Your task to perform on an android device: turn on data saver in the chrome app Image 0: 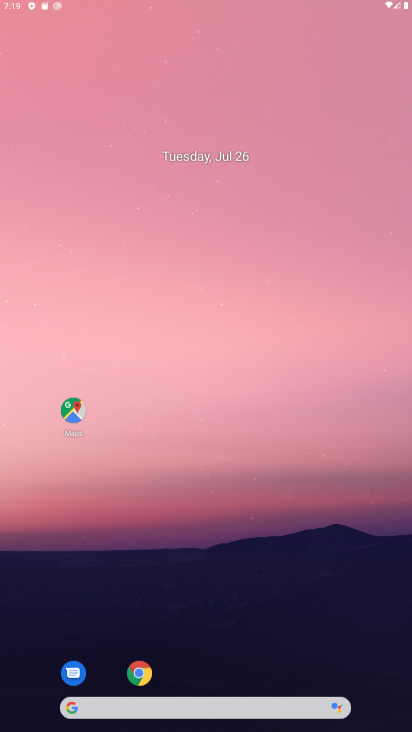
Step 0: drag from (355, 597) to (247, 237)
Your task to perform on an android device: turn on data saver in the chrome app Image 1: 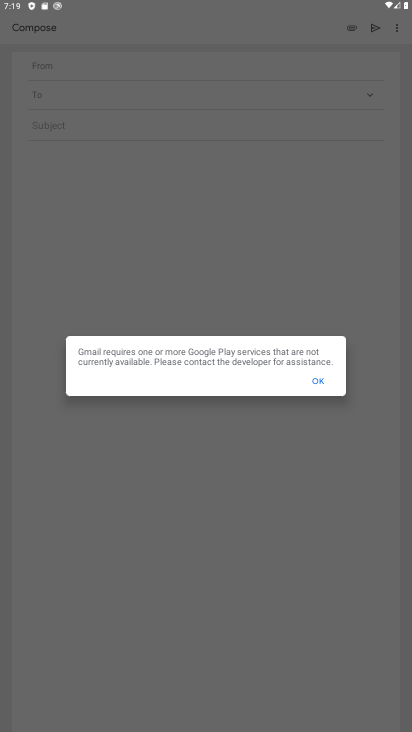
Step 1: press home button
Your task to perform on an android device: turn on data saver in the chrome app Image 2: 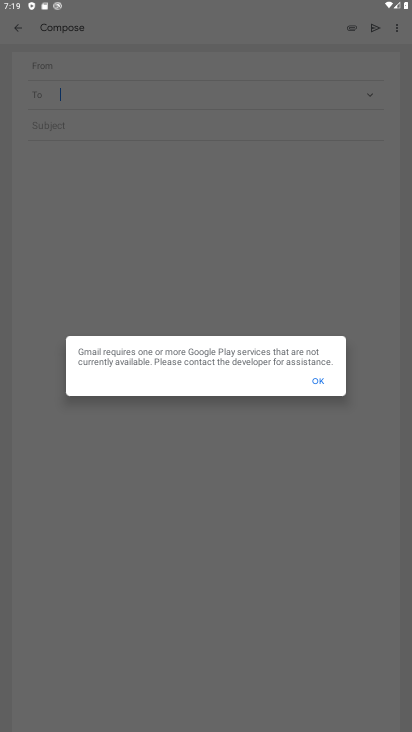
Step 2: drag from (273, 105) to (266, 69)
Your task to perform on an android device: turn on data saver in the chrome app Image 3: 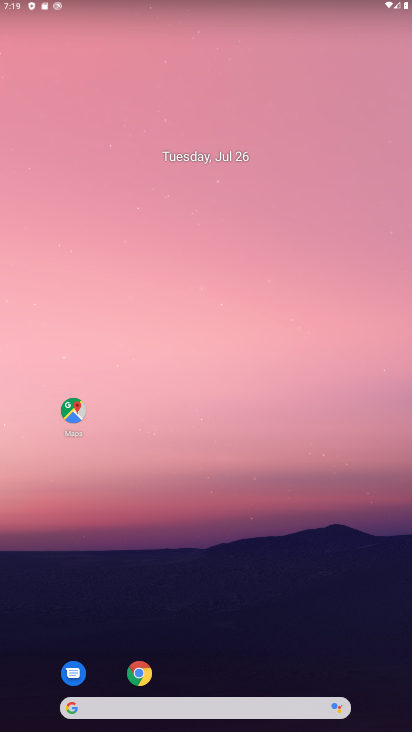
Step 3: drag from (277, 485) to (185, 1)
Your task to perform on an android device: turn on data saver in the chrome app Image 4: 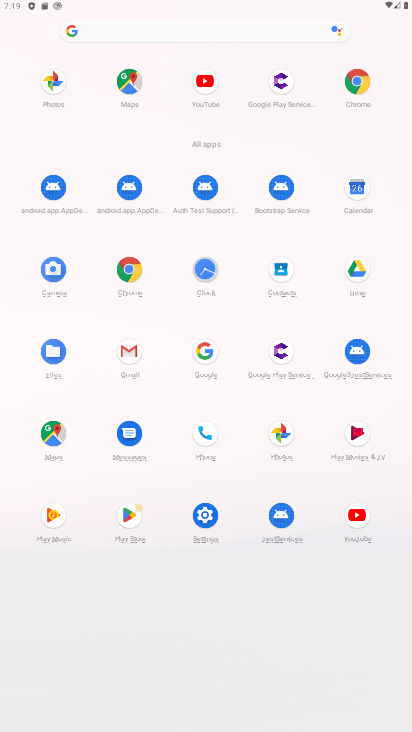
Step 4: click (360, 91)
Your task to perform on an android device: turn on data saver in the chrome app Image 5: 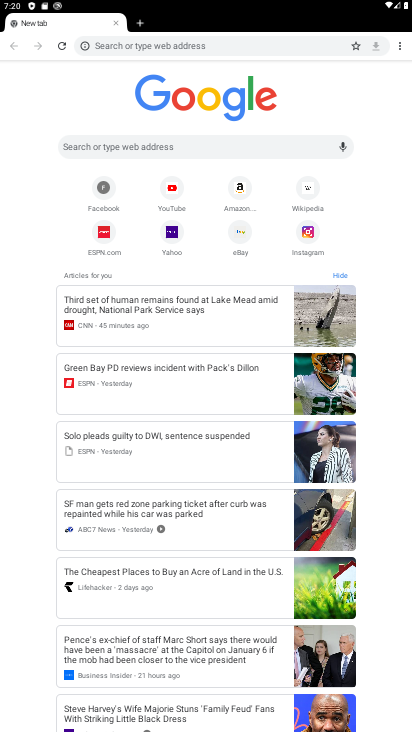
Step 5: click (393, 46)
Your task to perform on an android device: turn on data saver in the chrome app Image 6: 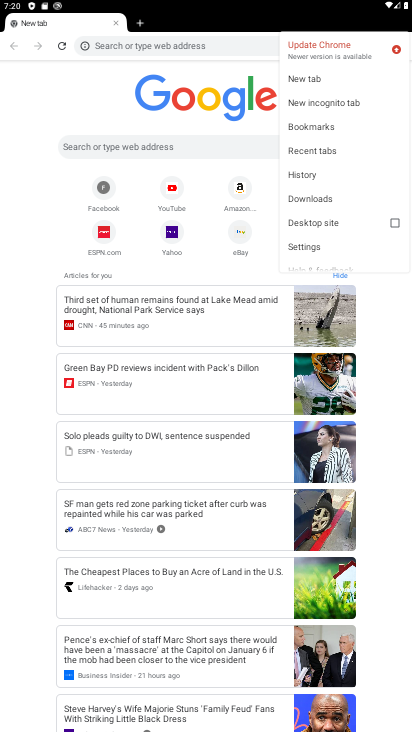
Step 6: click (308, 247)
Your task to perform on an android device: turn on data saver in the chrome app Image 7: 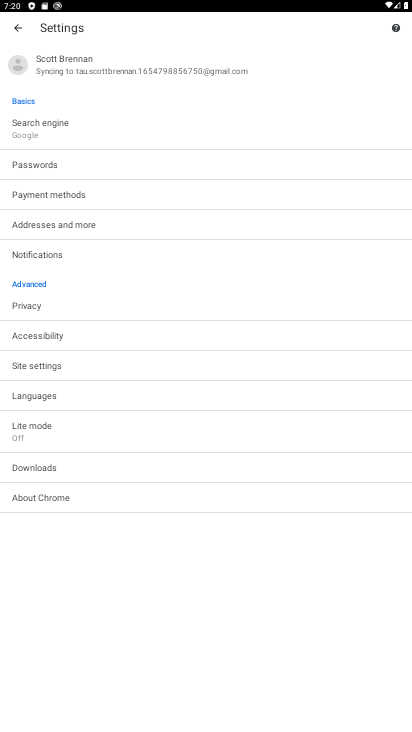
Step 7: click (107, 438)
Your task to perform on an android device: turn on data saver in the chrome app Image 8: 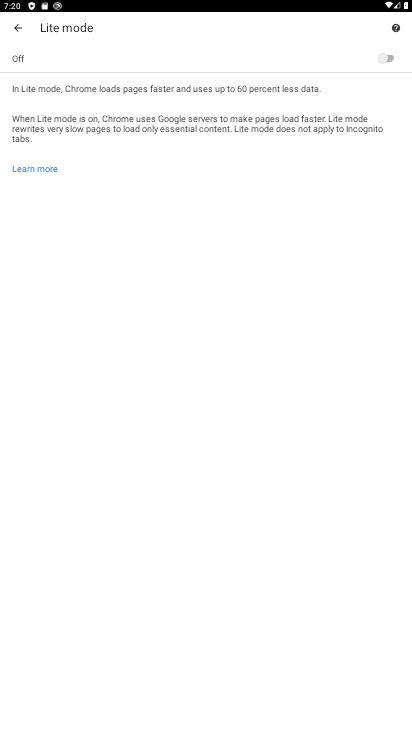
Step 8: click (390, 53)
Your task to perform on an android device: turn on data saver in the chrome app Image 9: 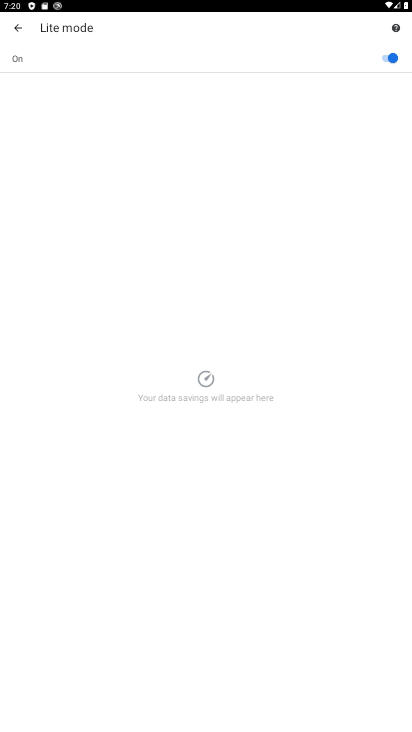
Step 9: task complete